Your task to perform on an android device: clear all cookies in the chrome app Image 0: 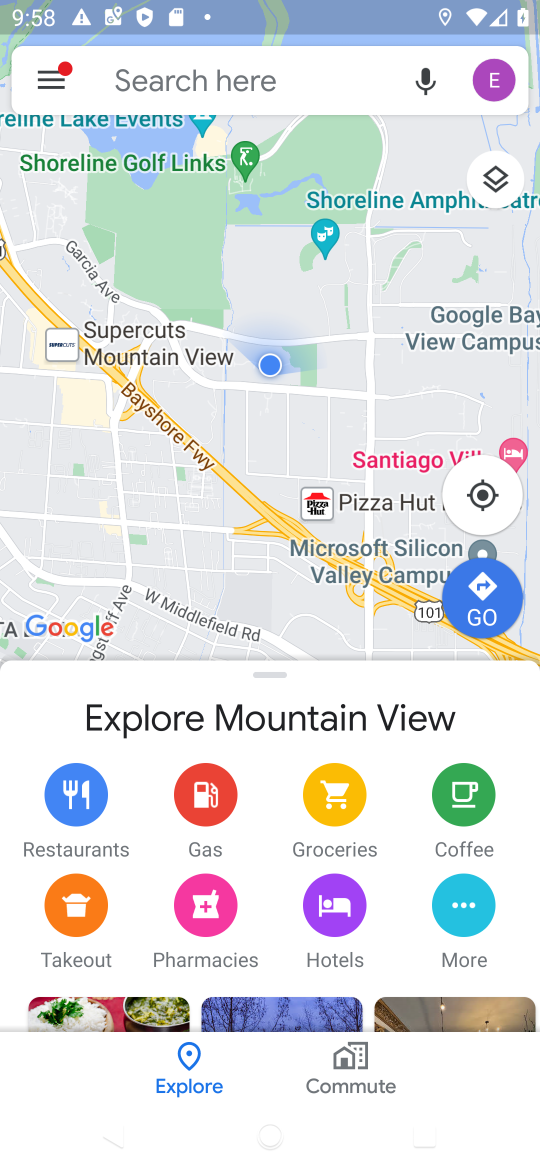
Step 0: press home button
Your task to perform on an android device: clear all cookies in the chrome app Image 1: 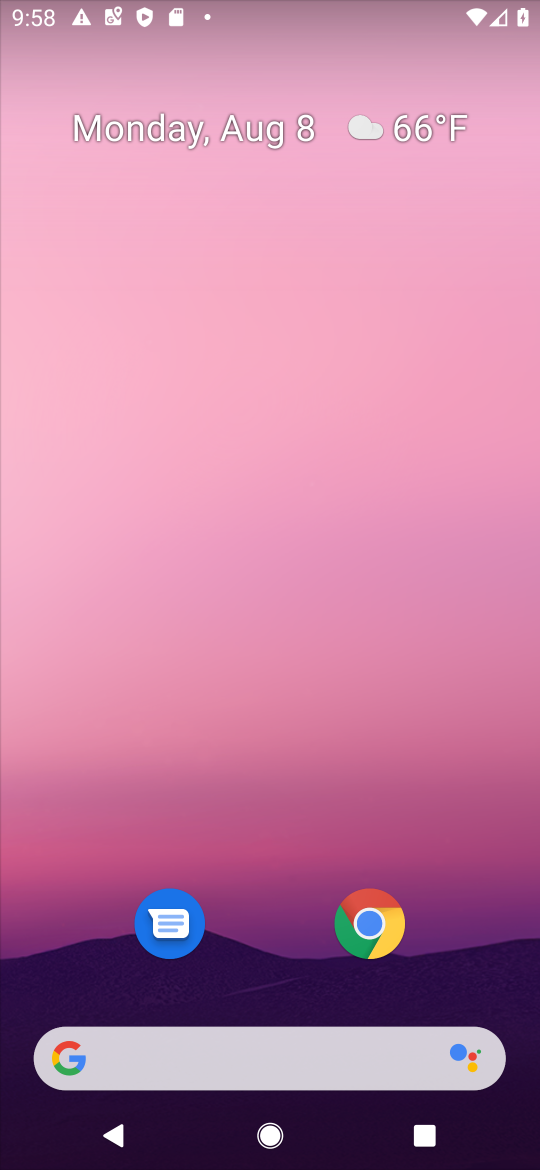
Step 1: click (368, 937)
Your task to perform on an android device: clear all cookies in the chrome app Image 2: 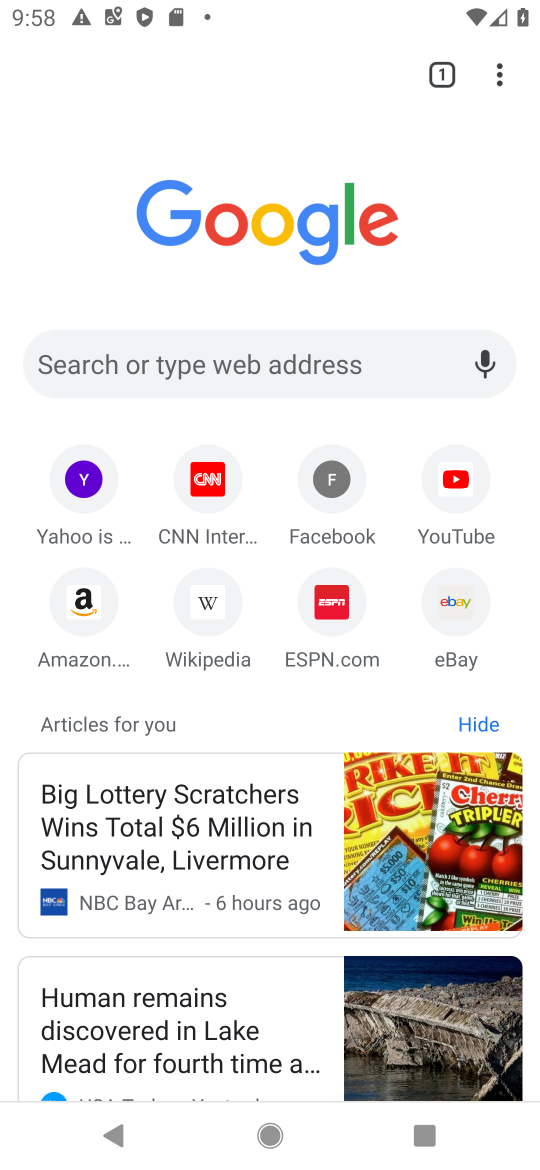
Step 2: click (503, 71)
Your task to perform on an android device: clear all cookies in the chrome app Image 3: 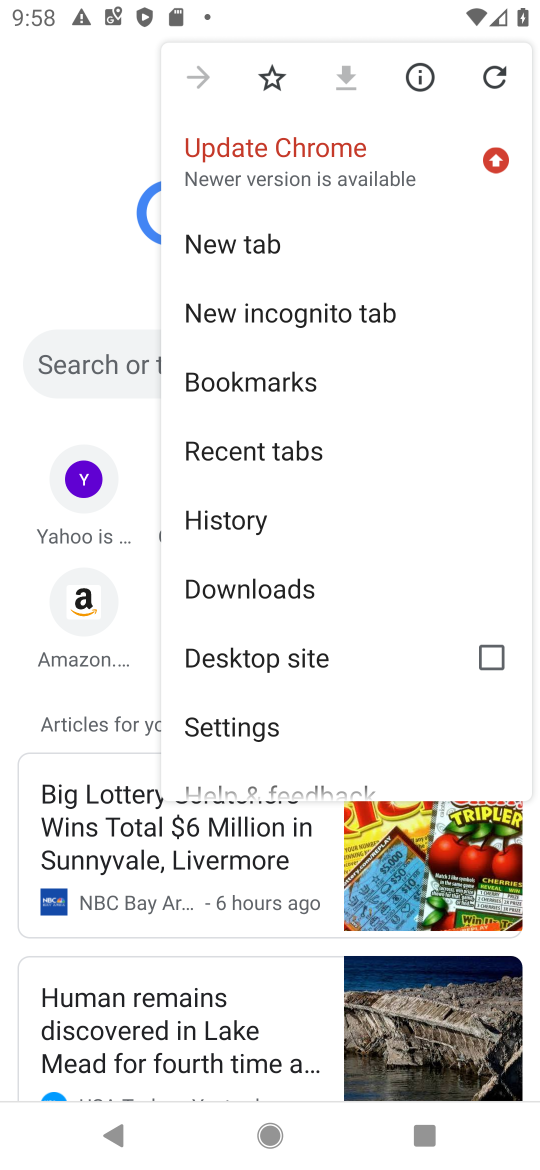
Step 3: click (256, 729)
Your task to perform on an android device: clear all cookies in the chrome app Image 4: 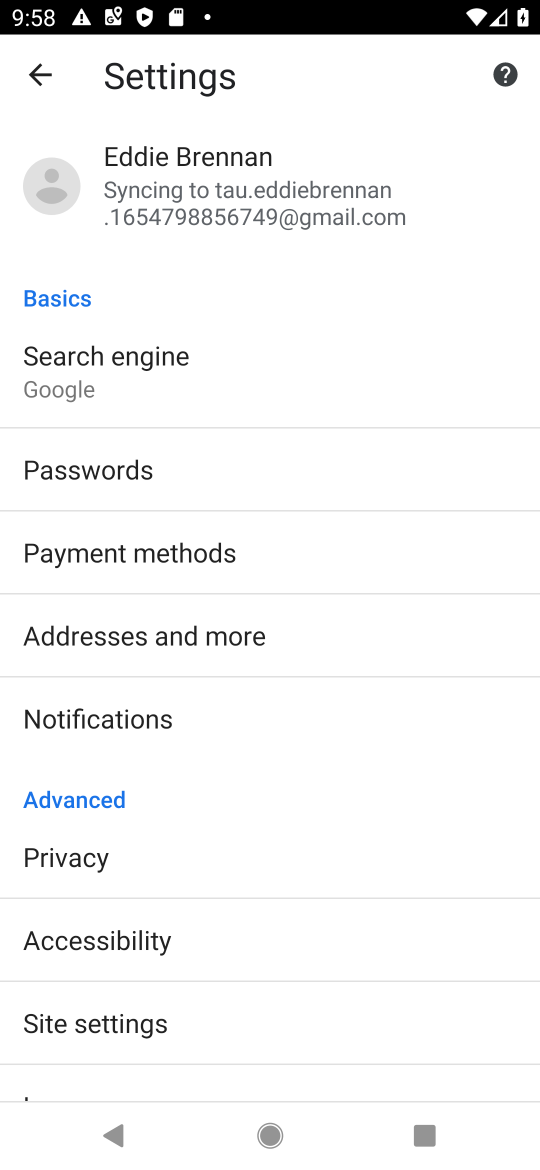
Step 4: drag from (404, 851) to (333, 516)
Your task to perform on an android device: clear all cookies in the chrome app Image 5: 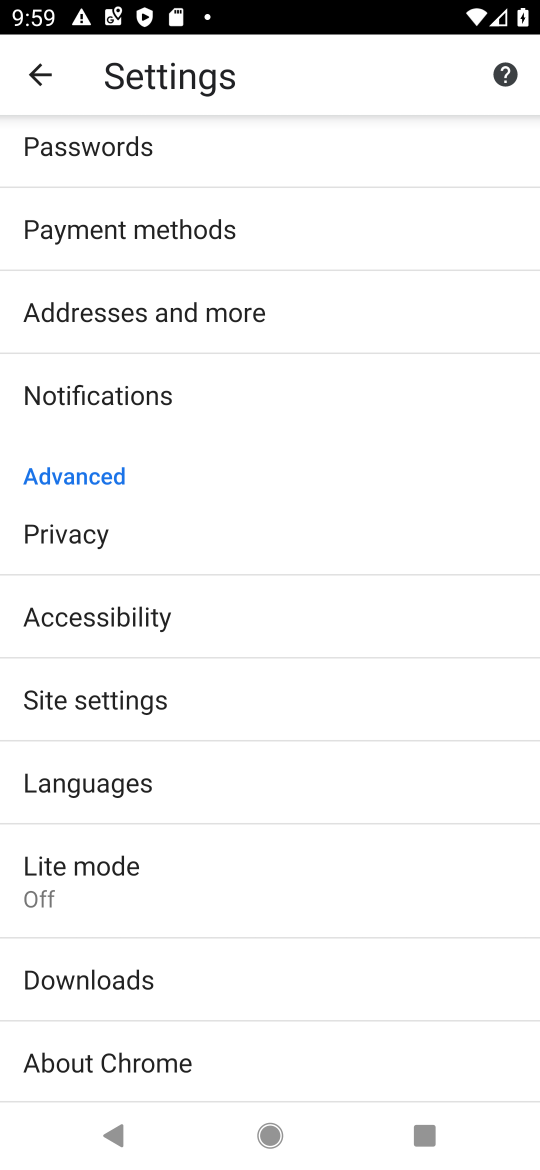
Step 5: drag from (330, 351) to (423, 1132)
Your task to perform on an android device: clear all cookies in the chrome app Image 6: 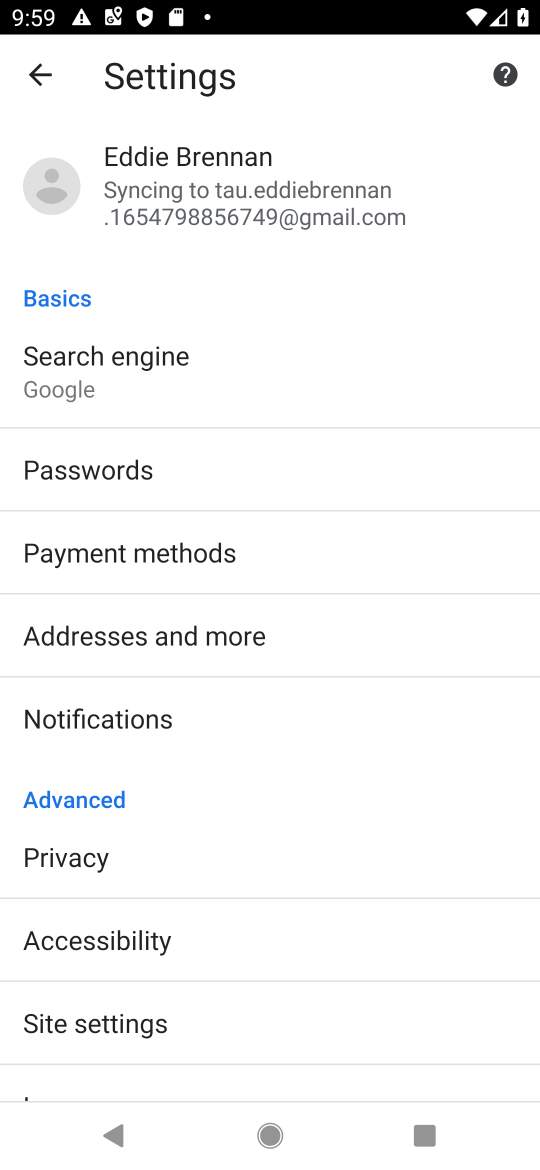
Step 6: click (34, 85)
Your task to perform on an android device: clear all cookies in the chrome app Image 7: 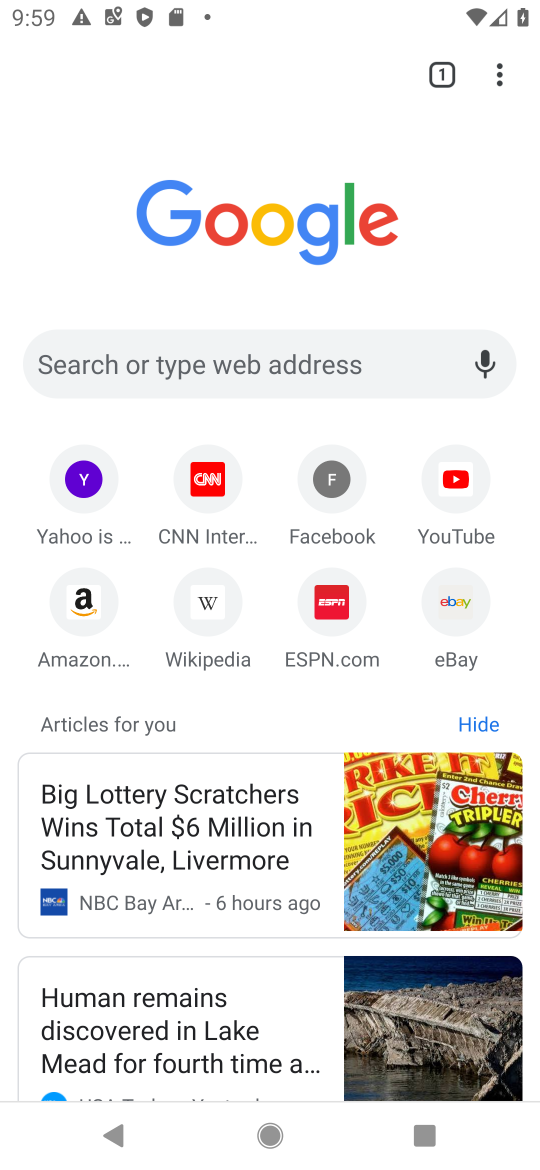
Step 7: click (509, 79)
Your task to perform on an android device: clear all cookies in the chrome app Image 8: 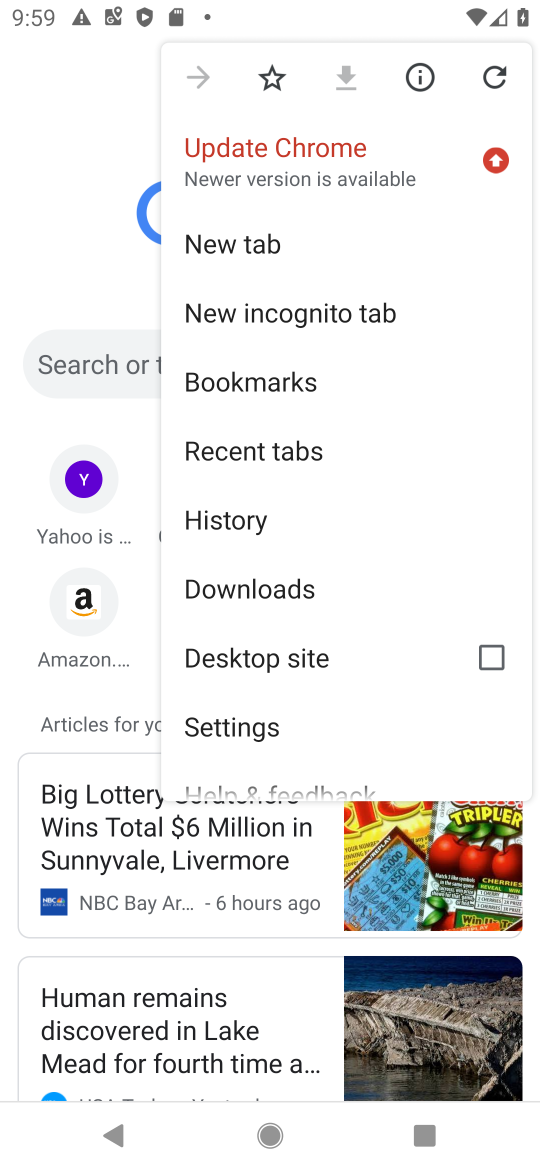
Step 8: click (236, 511)
Your task to perform on an android device: clear all cookies in the chrome app Image 9: 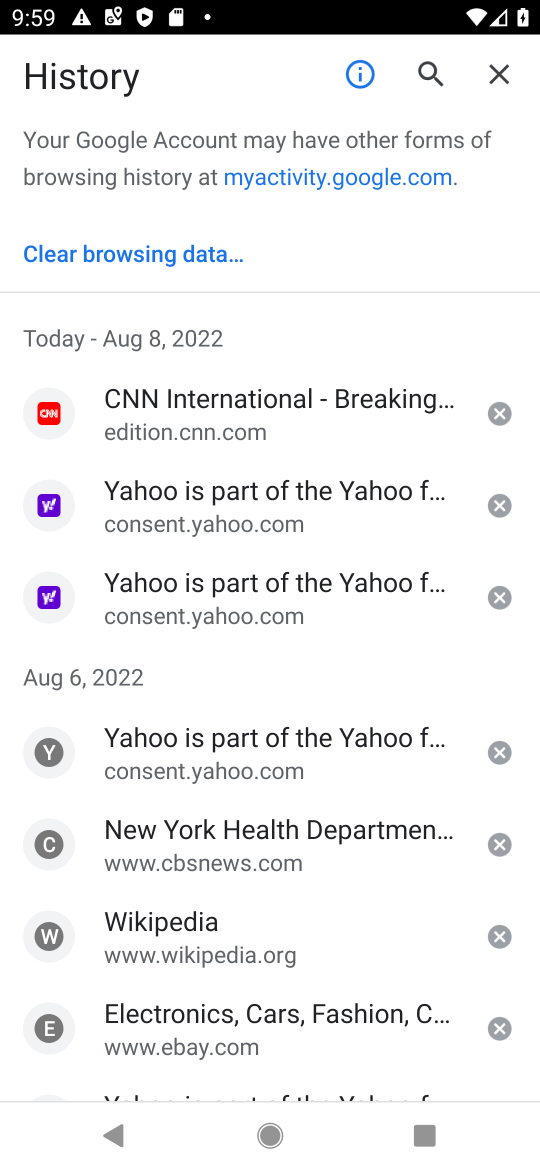
Step 9: click (154, 264)
Your task to perform on an android device: clear all cookies in the chrome app Image 10: 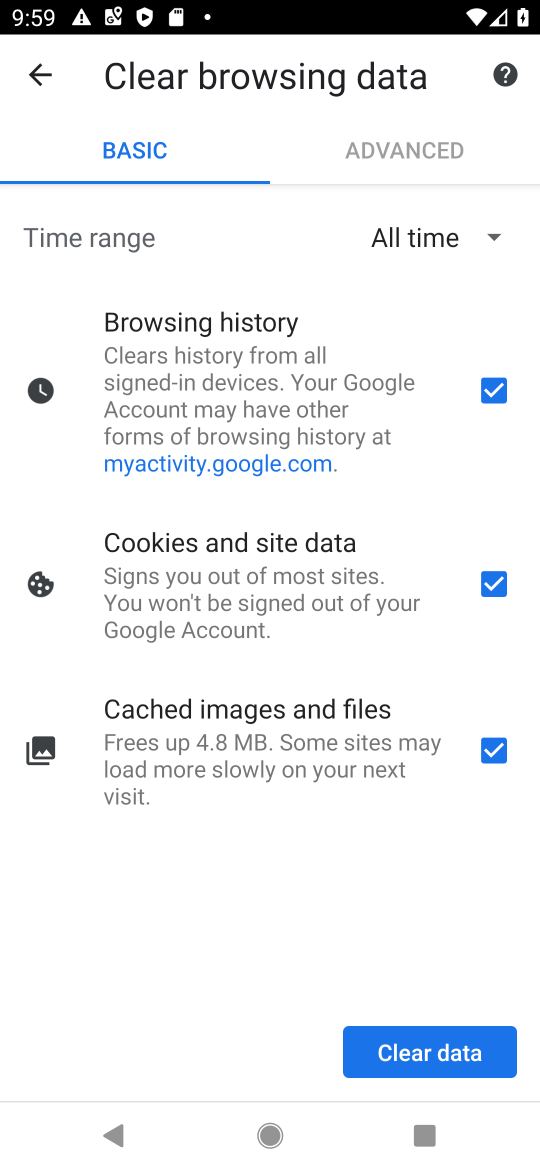
Step 10: click (498, 392)
Your task to perform on an android device: clear all cookies in the chrome app Image 11: 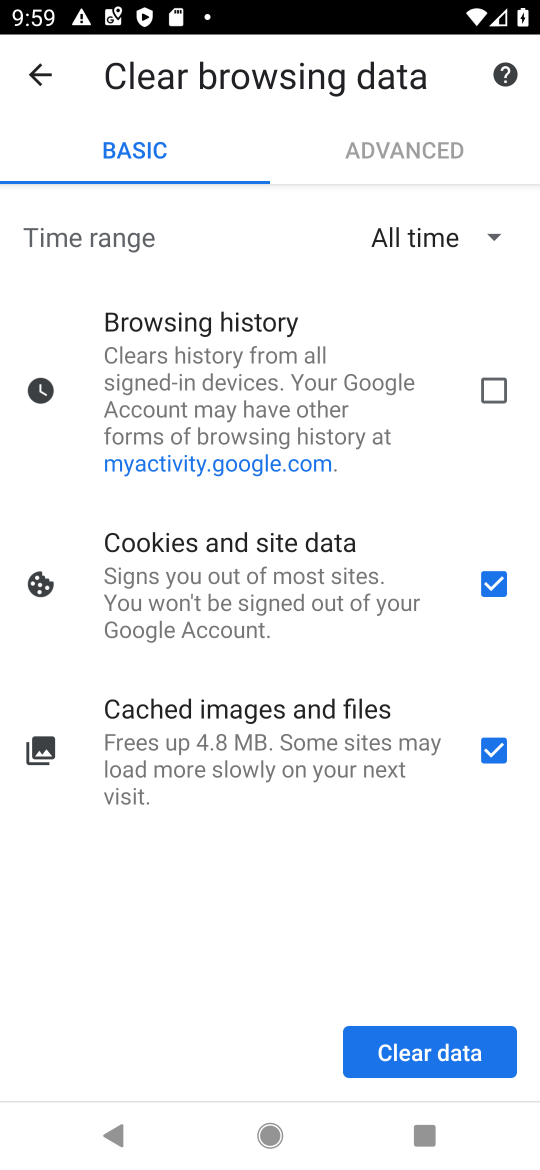
Step 11: click (494, 736)
Your task to perform on an android device: clear all cookies in the chrome app Image 12: 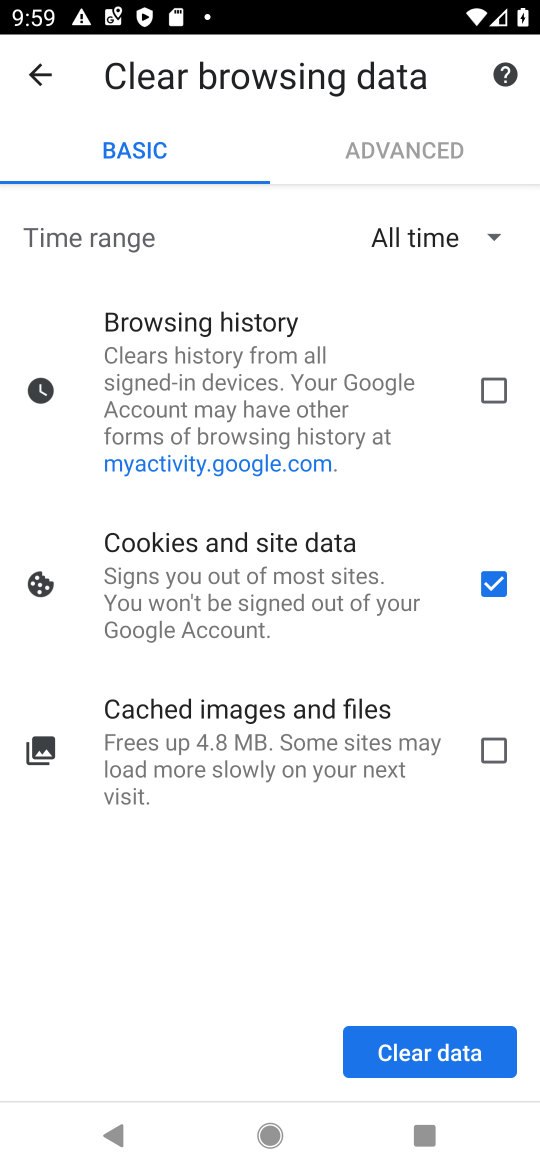
Step 12: click (438, 1044)
Your task to perform on an android device: clear all cookies in the chrome app Image 13: 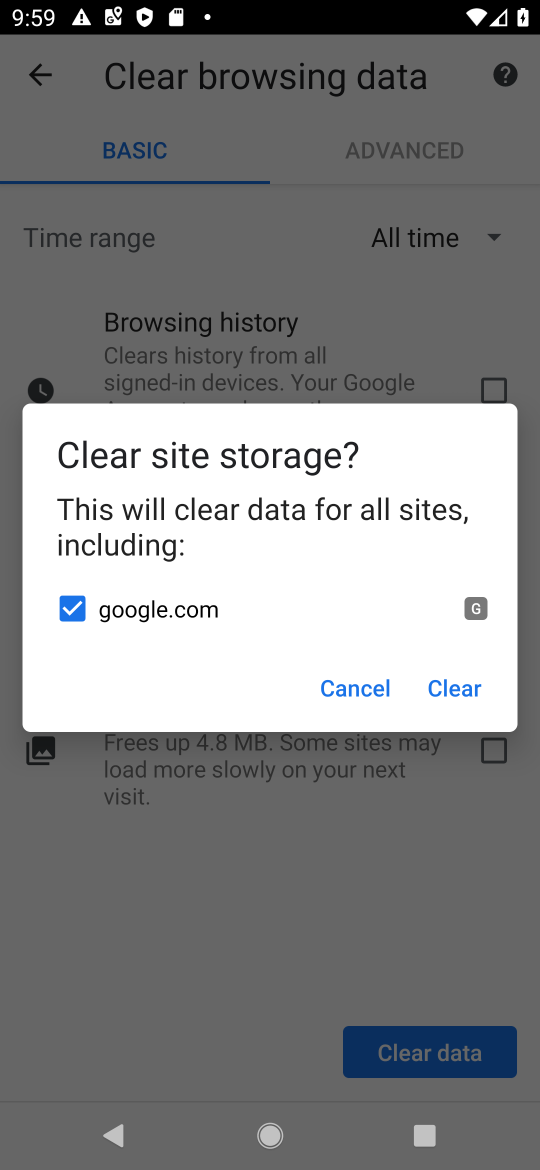
Step 13: click (455, 686)
Your task to perform on an android device: clear all cookies in the chrome app Image 14: 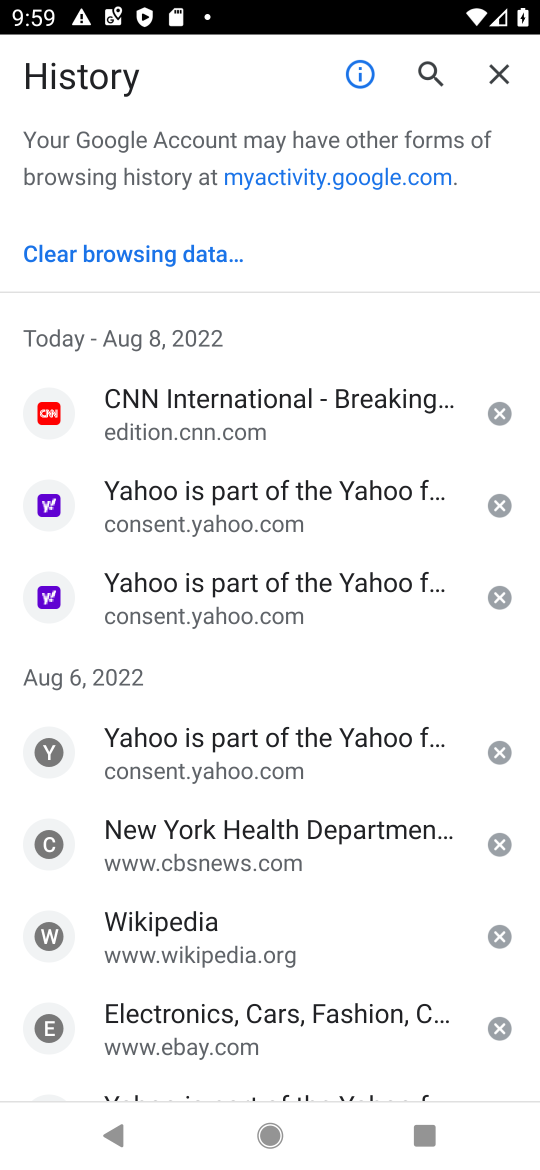
Step 14: task complete